Your task to perform on an android device: add a label to a message in the gmail app Image 0: 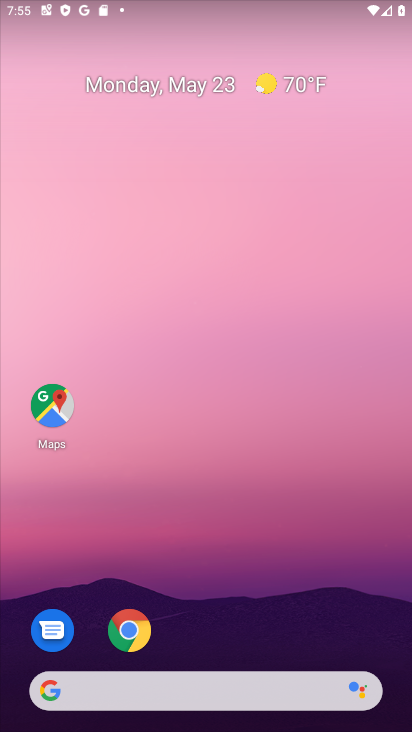
Step 0: drag from (322, 459) to (334, 28)
Your task to perform on an android device: add a label to a message in the gmail app Image 1: 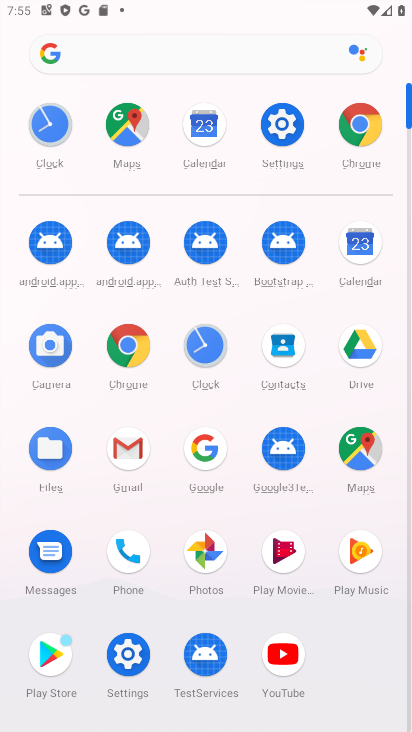
Step 1: click (146, 454)
Your task to perform on an android device: add a label to a message in the gmail app Image 2: 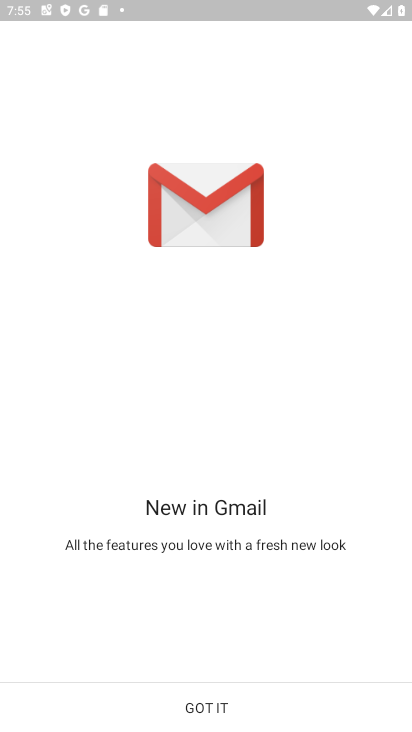
Step 2: click (266, 726)
Your task to perform on an android device: add a label to a message in the gmail app Image 3: 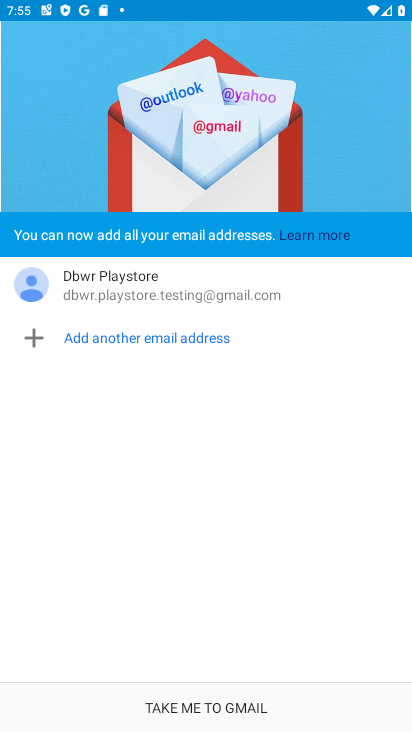
Step 3: click (245, 720)
Your task to perform on an android device: add a label to a message in the gmail app Image 4: 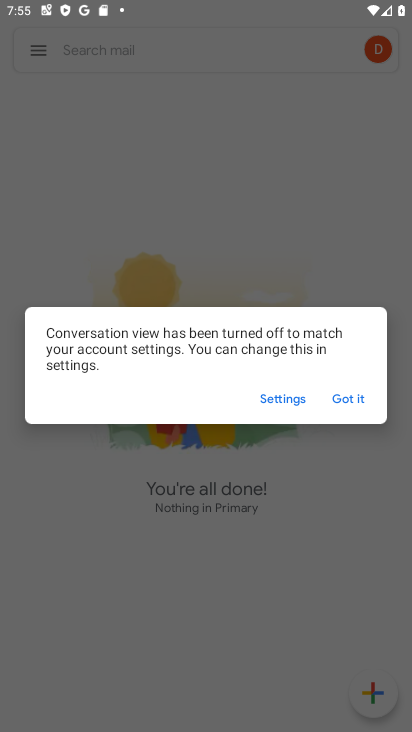
Step 4: click (359, 397)
Your task to perform on an android device: add a label to a message in the gmail app Image 5: 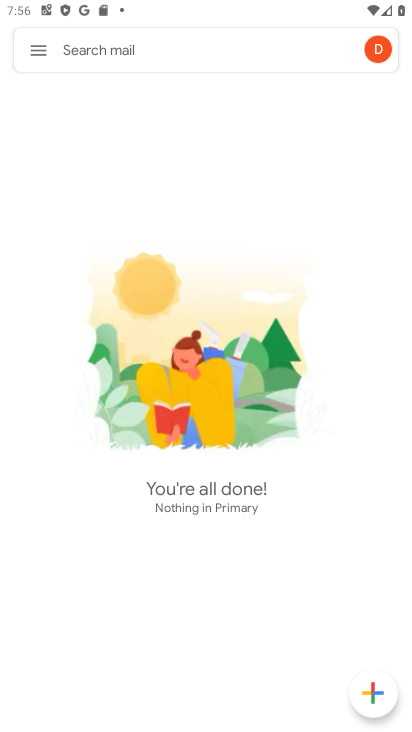
Step 5: click (35, 44)
Your task to perform on an android device: add a label to a message in the gmail app Image 6: 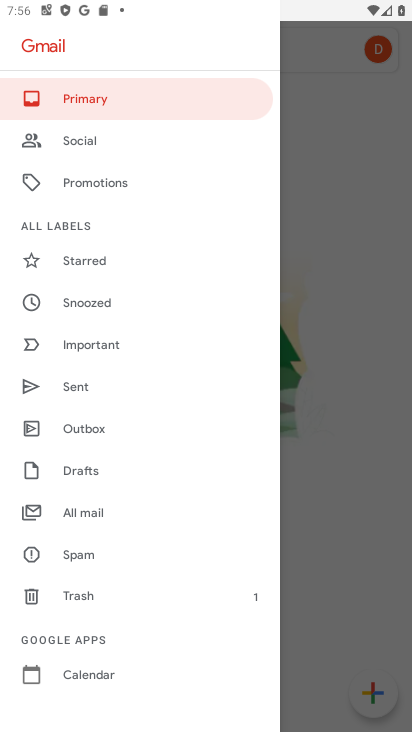
Step 6: click (88, 511)
Your task to perform on an android device: add a label to a message in the gmail app Image 7: 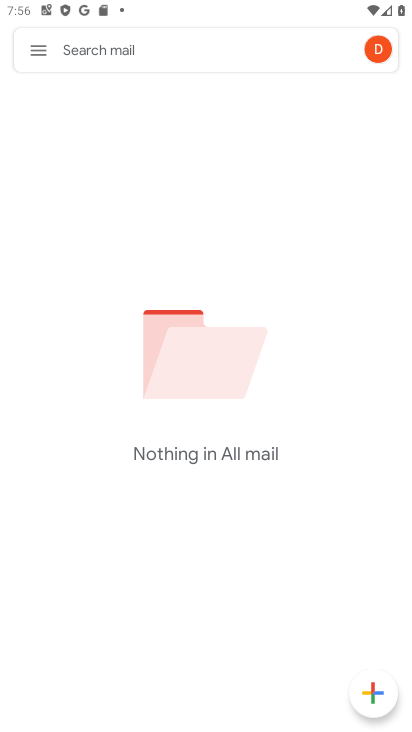
Step 7: task complete